Your task to perform on an android device: turn on showing notifications on the lock screen Image 0: 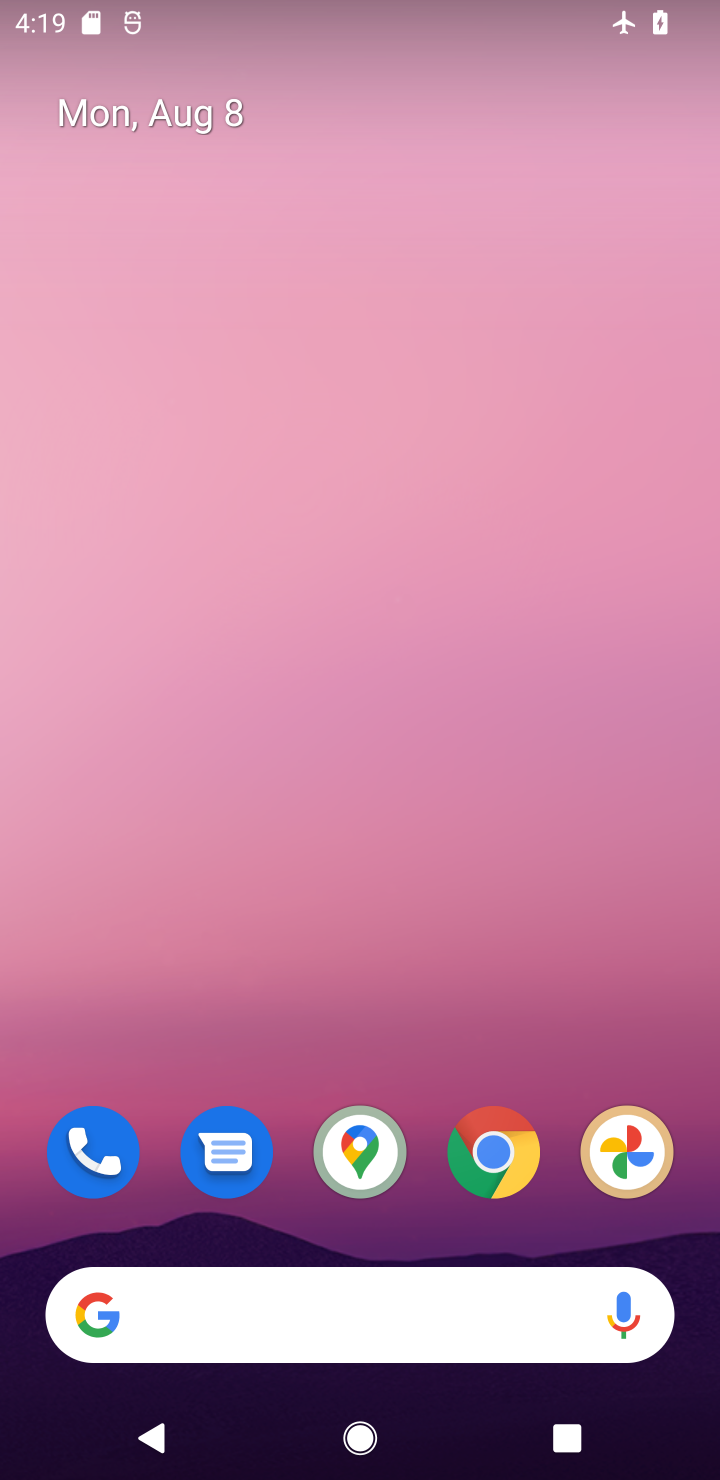
Step 0: drag from (352, 997) to (475, 123)
Your task to perform on an android device: turn on showing notifications on the lock screen Image 1: 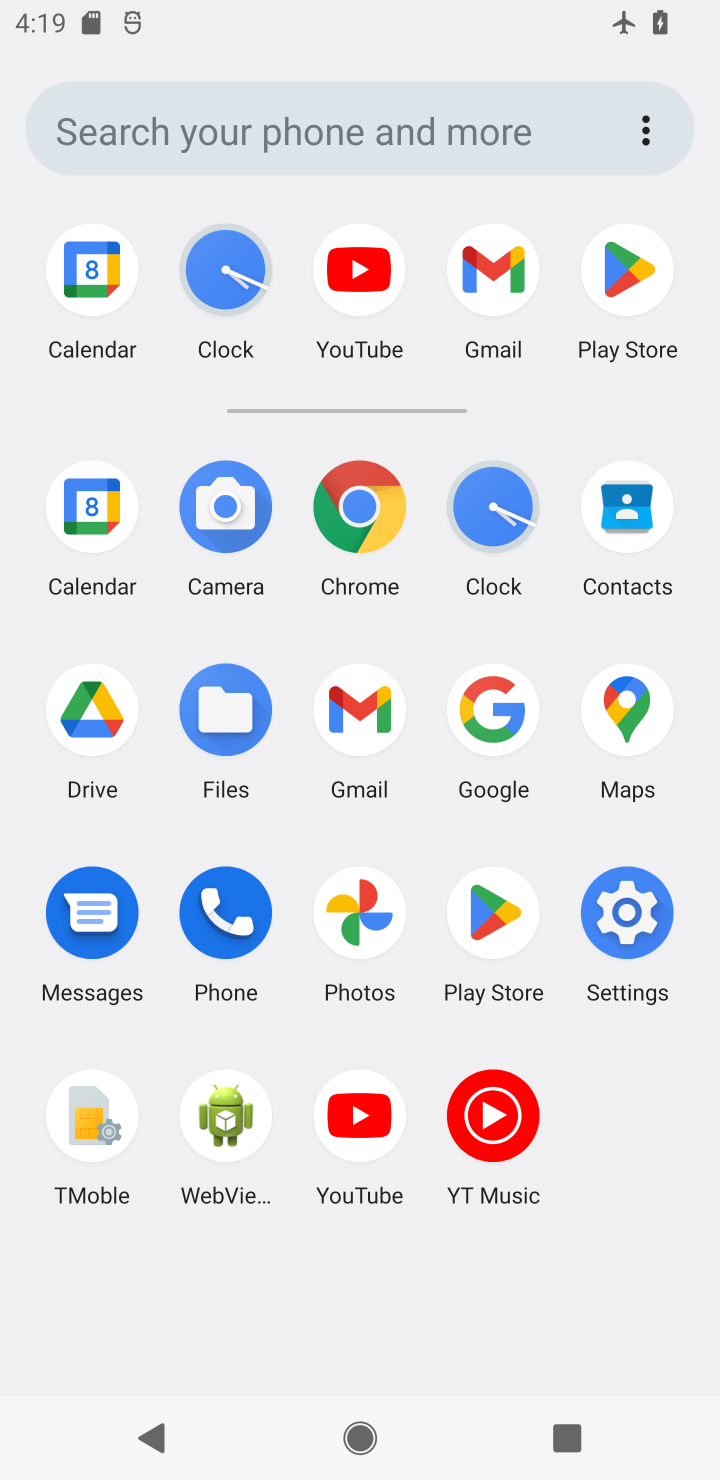
Step 1: click (619, 917)
Your task to perform on an android device: turn on showing notifications on the lock screen Image 2: 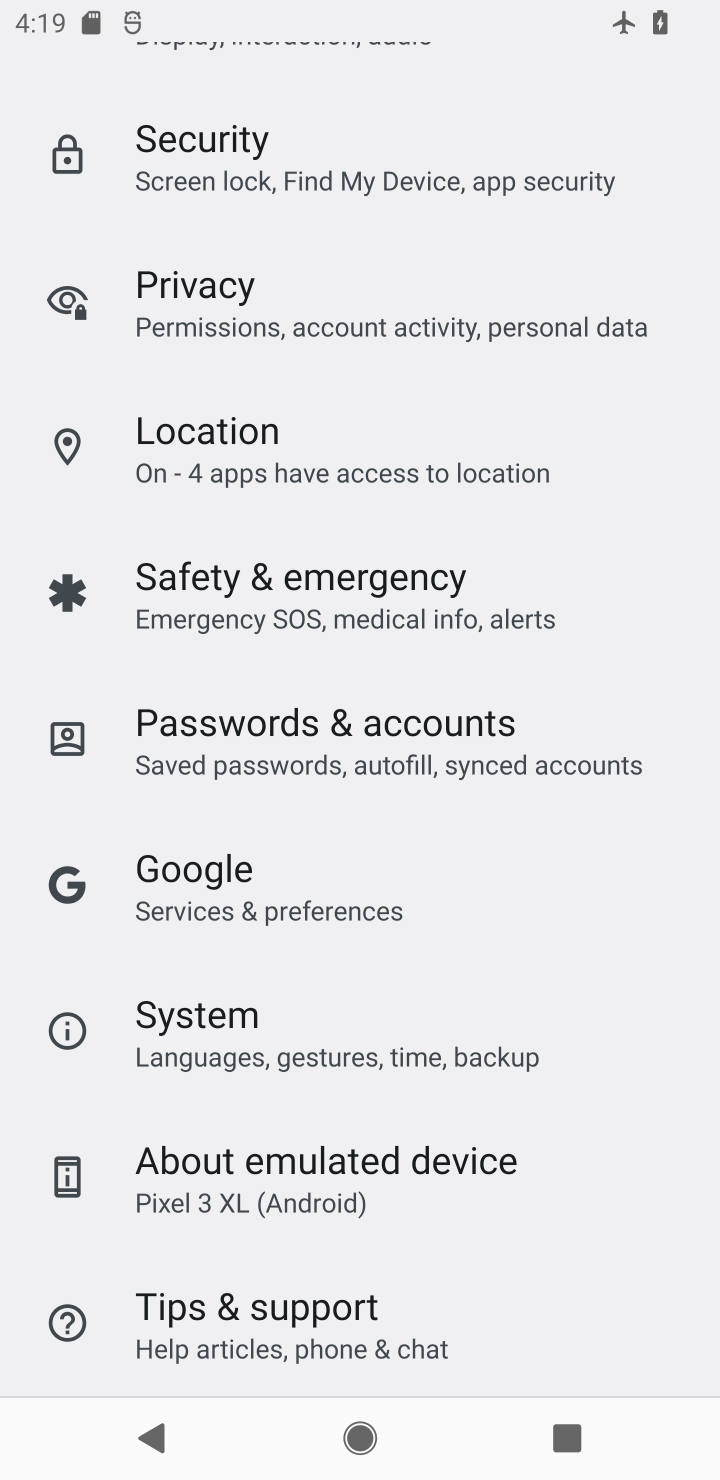
Step 2: drag from (445, 215) to (405, 1458)
Your task to perform on an android device: turn on showing notifications on the lock screen Image 3: 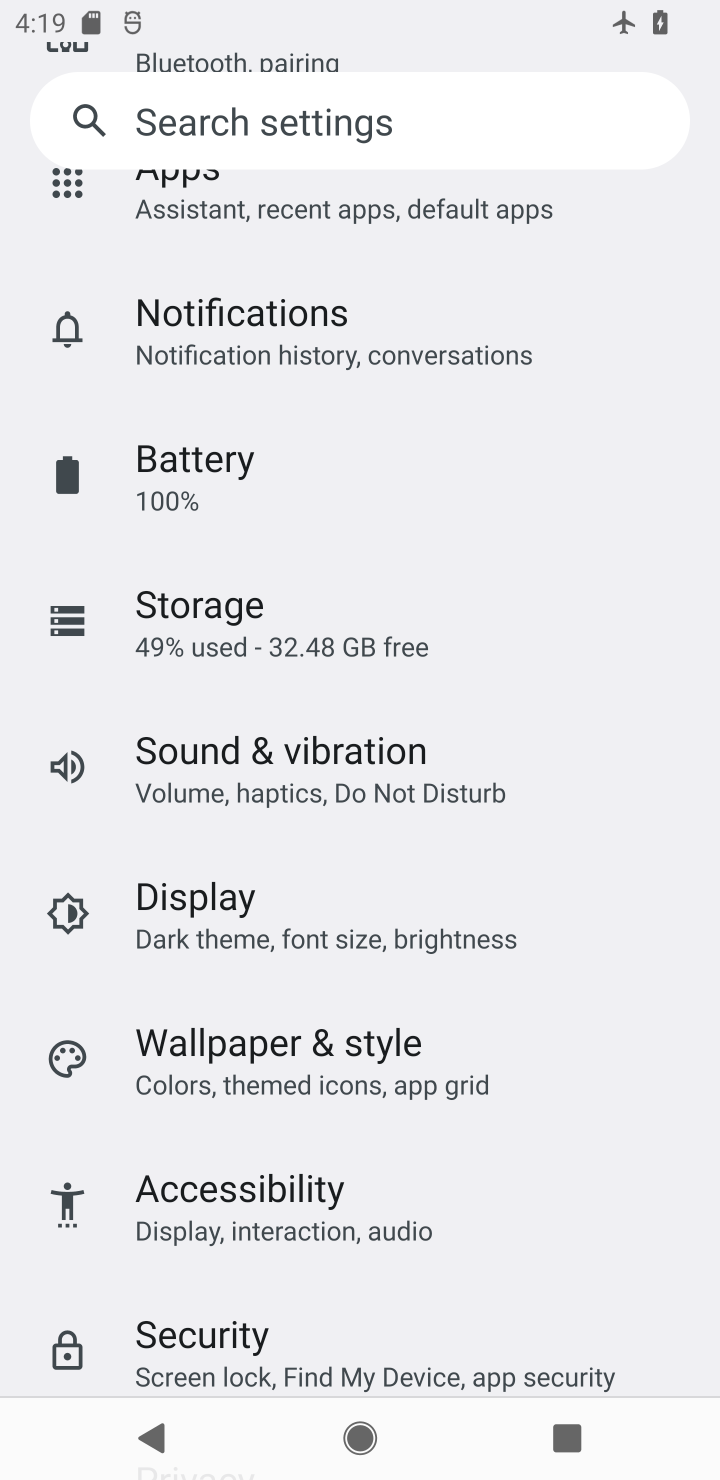
Step 3: click (189, 315)
Your task to perform on an android device: turn on showing notifications on the lock screen Image 4: 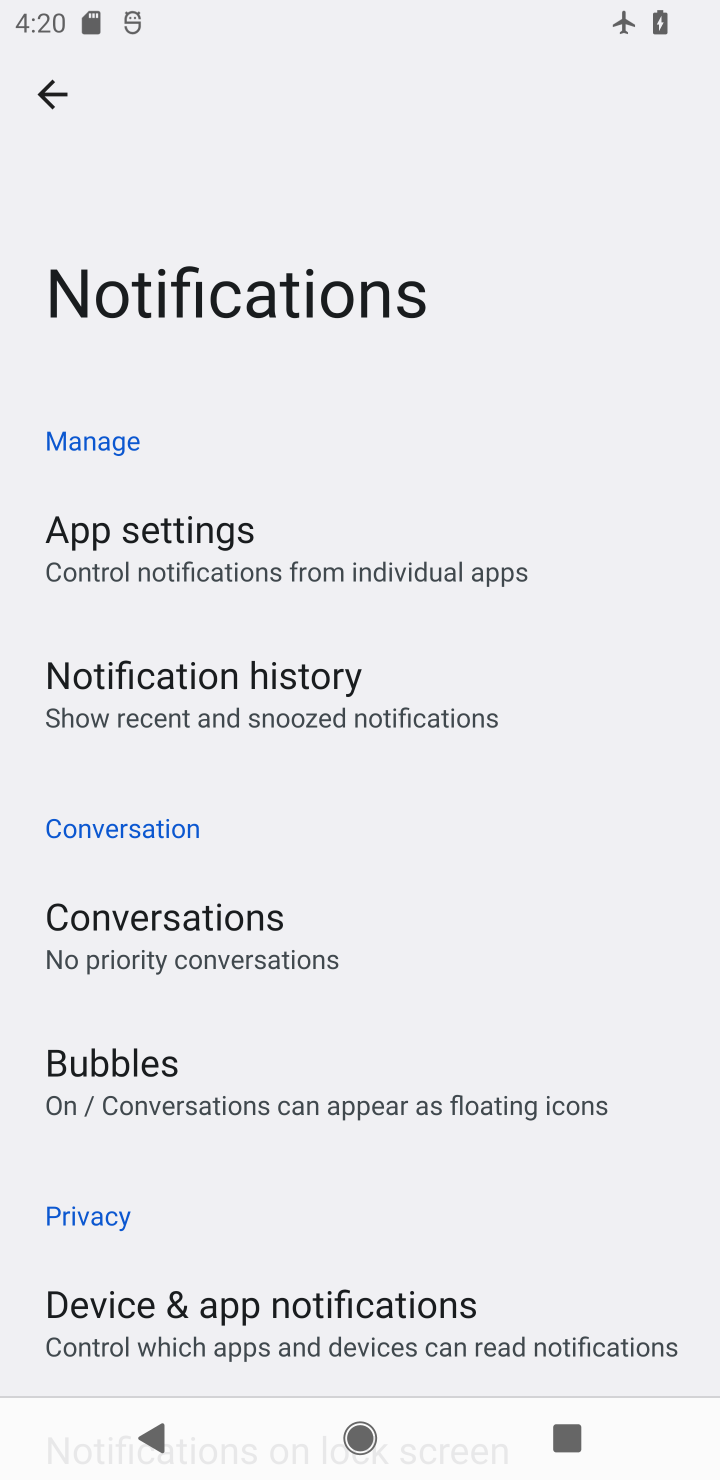
Step 4: drag from (349, 1247) to (528, 467)
Your task to perform on an android device: turn on showing notifications on the lock screen Image 5: 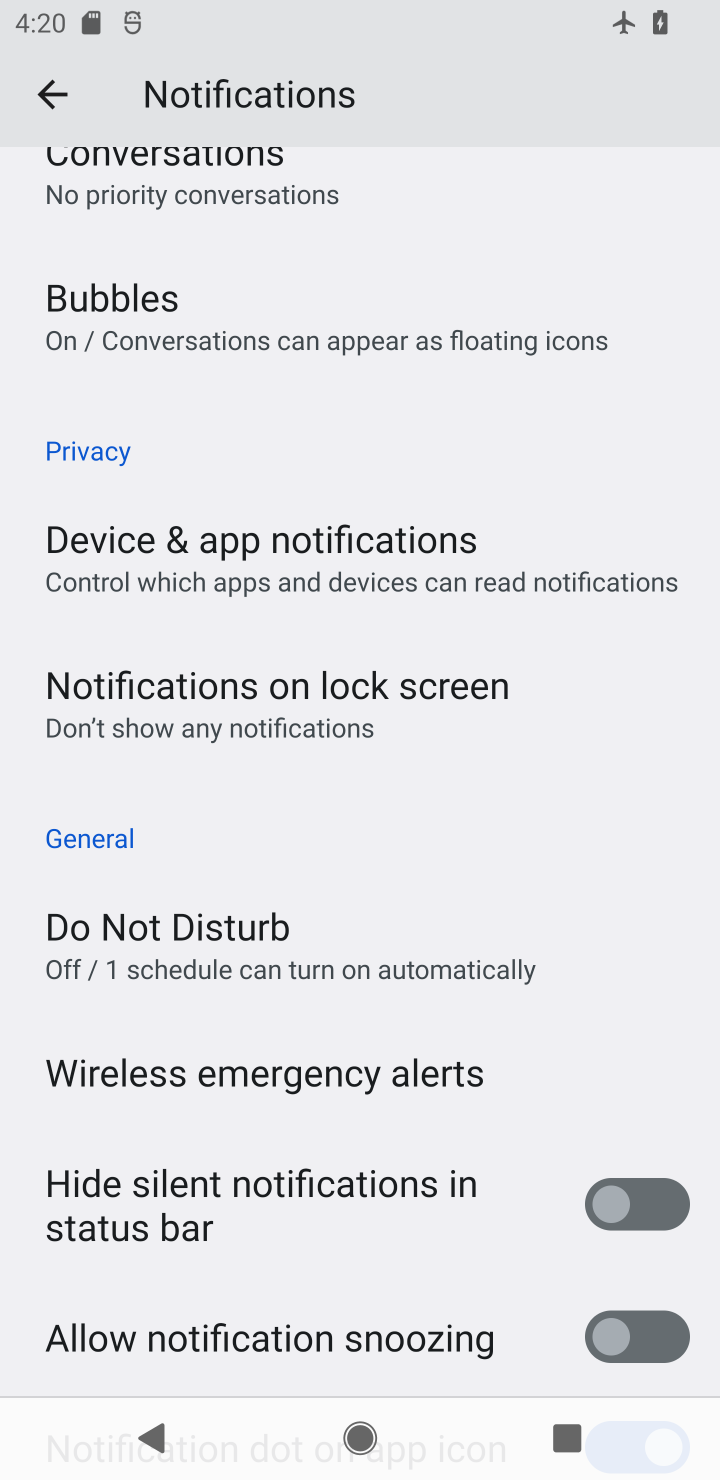
Step 5: click (444, 679)
Your task to perform on an android device: turn on showing notifications on the lock screen Image 6: 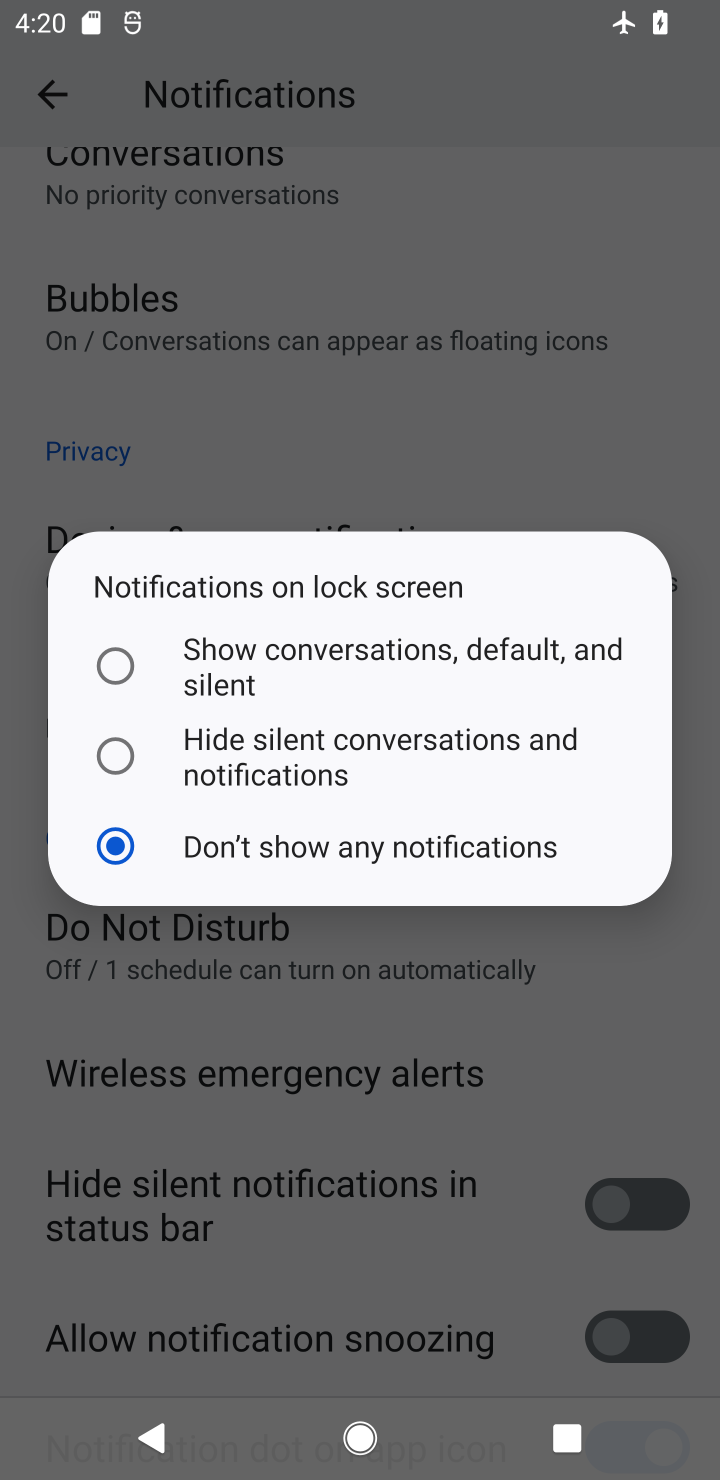
Step 6: click (110, 655)
Your task to perform on an android device: turn on showing notifications on the lock screen Image 7: 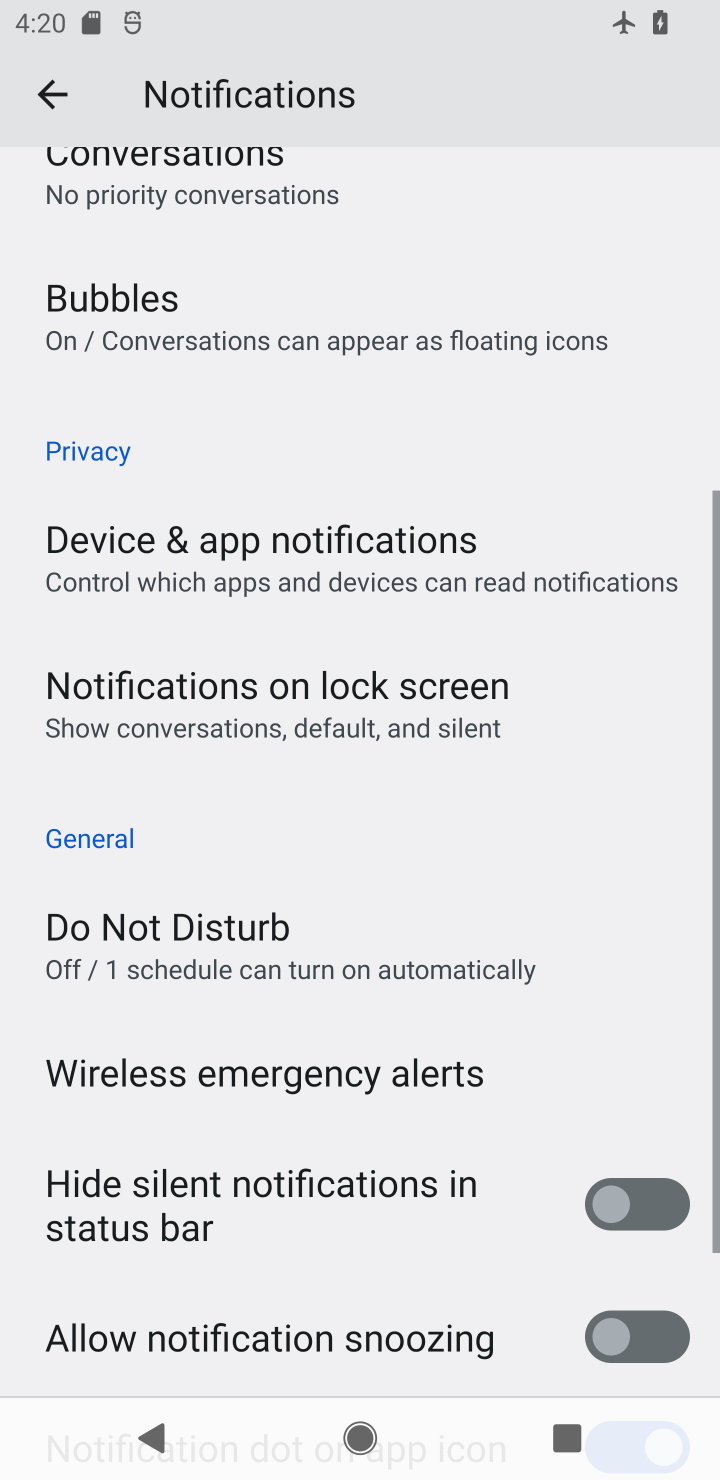
Step 7: task complete